Your task to perform on an android device: Search for "logitech g502" on costco.com, select the first entry, add it to the cart, then select checkout. Image 0: 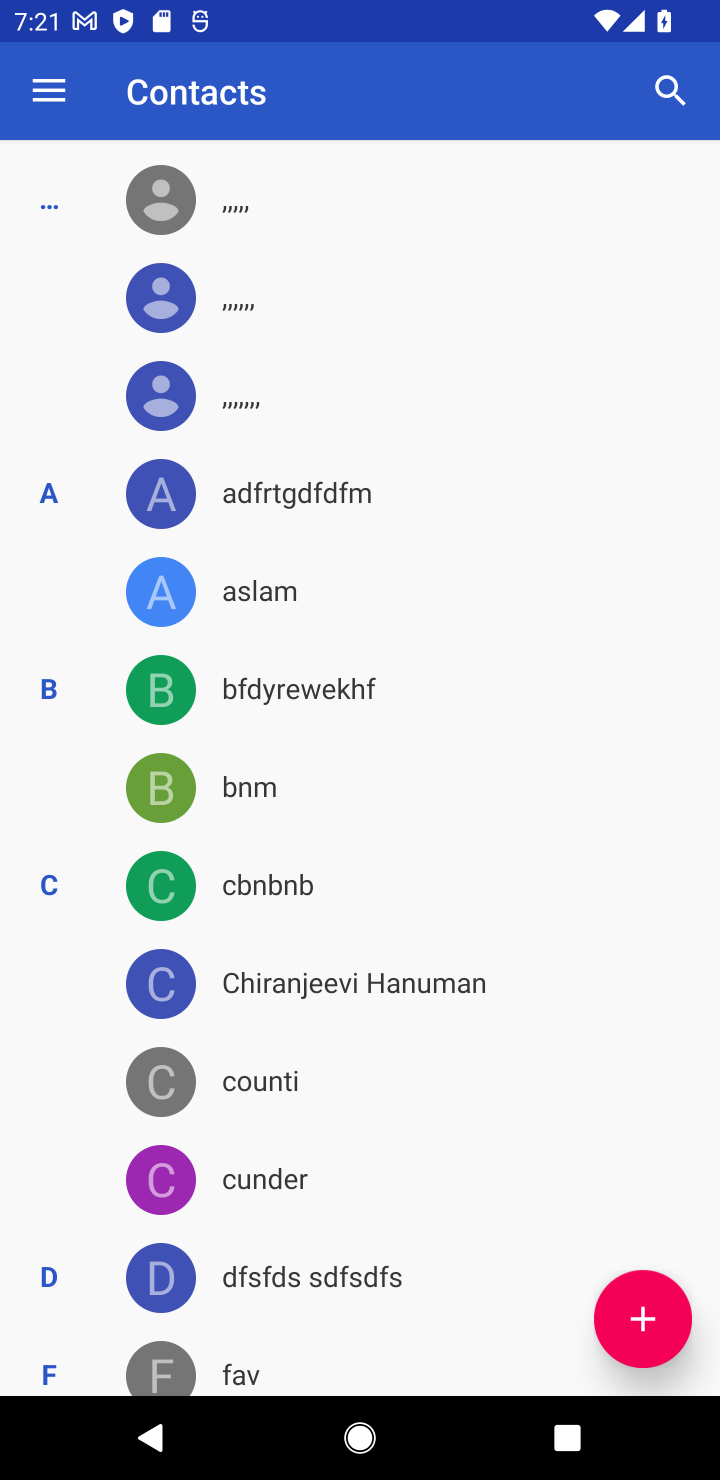
Step 0: press home button
Your task to perform on an android device: Search for "logitech g502" on costco.com, select the first entry, add it to the cart, then select checkout. Image 1: 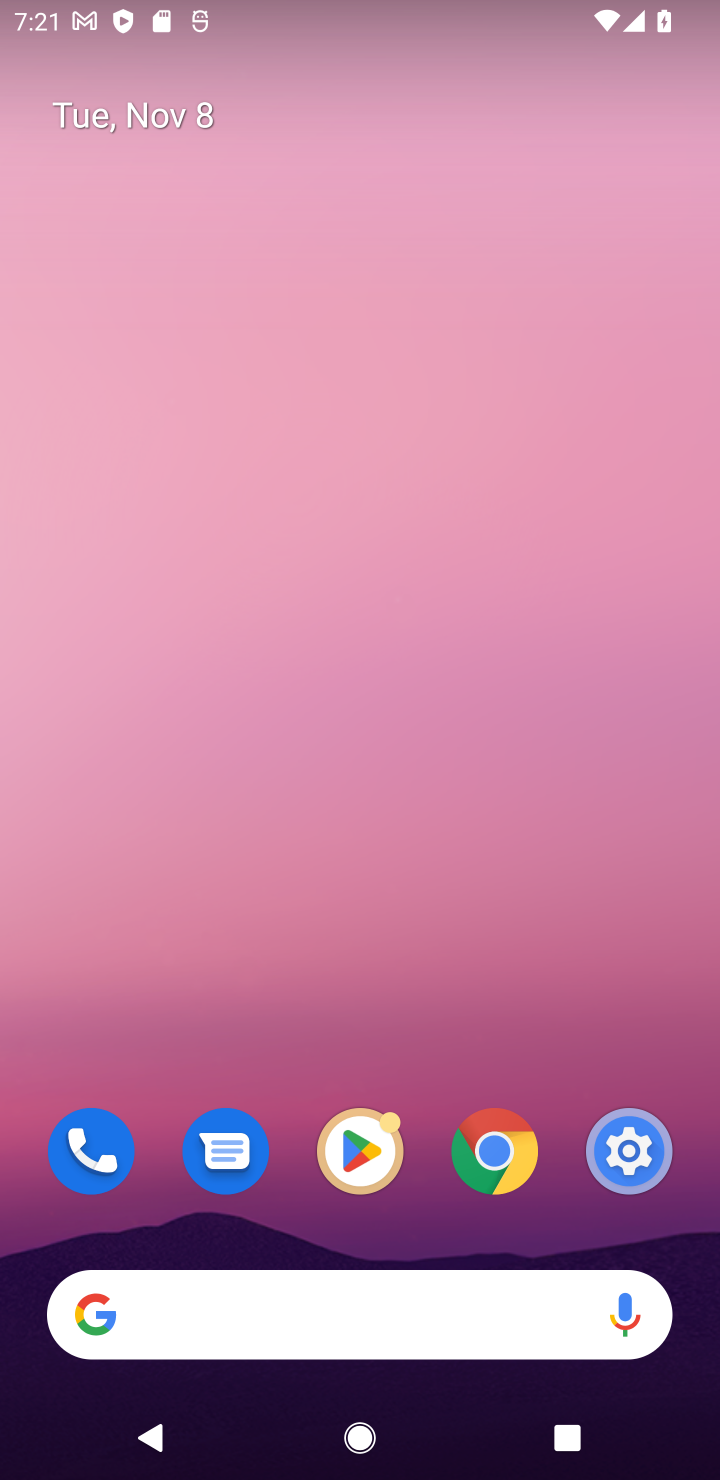
Step 1: click (457, 1335)
Your task to perform on an android device: Search for "logitech g502" on costco.com, select the first entry, add it to the cart, then select checkout. Image 2: 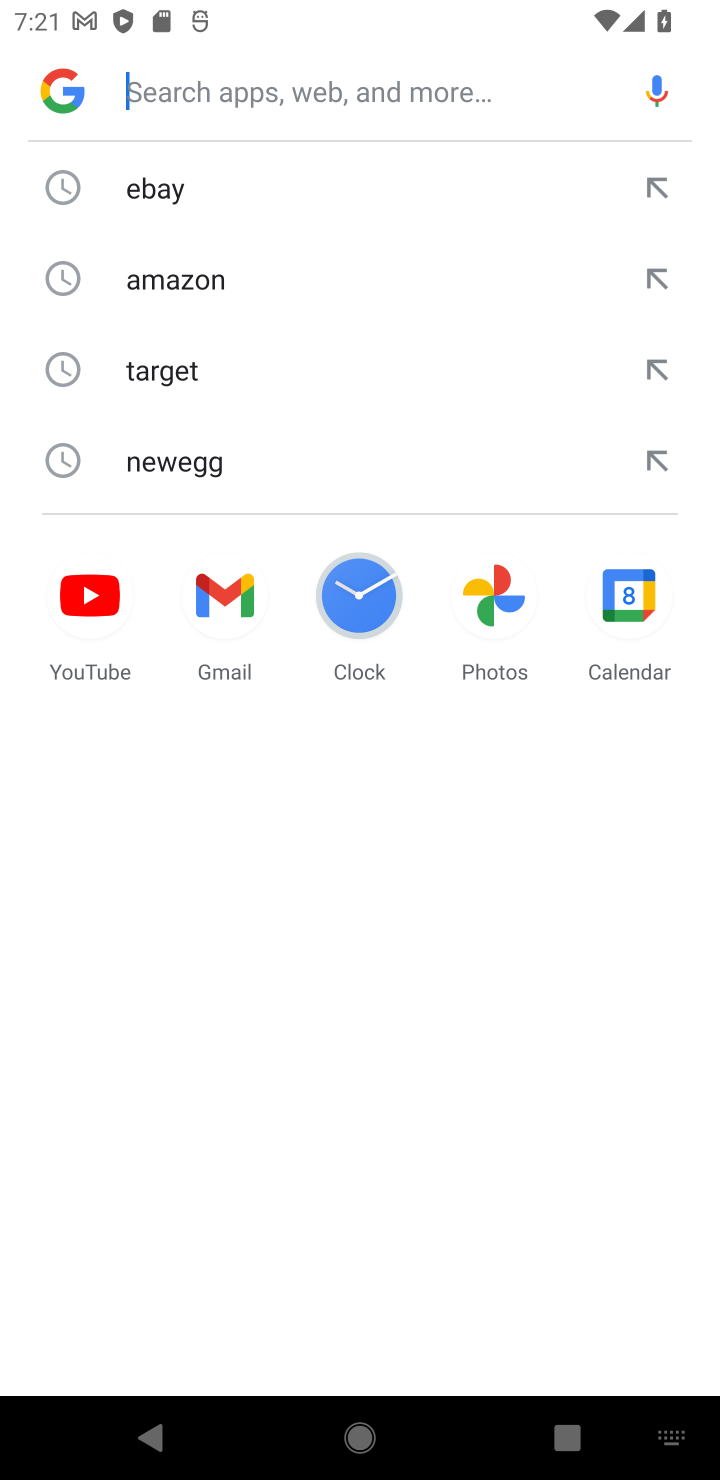
Step 2: type "costco"
Your task to perform on an android device: Search for "logitech g502" on costco.com, select the first entry, add it to the cart, then select checkout. Image 3: 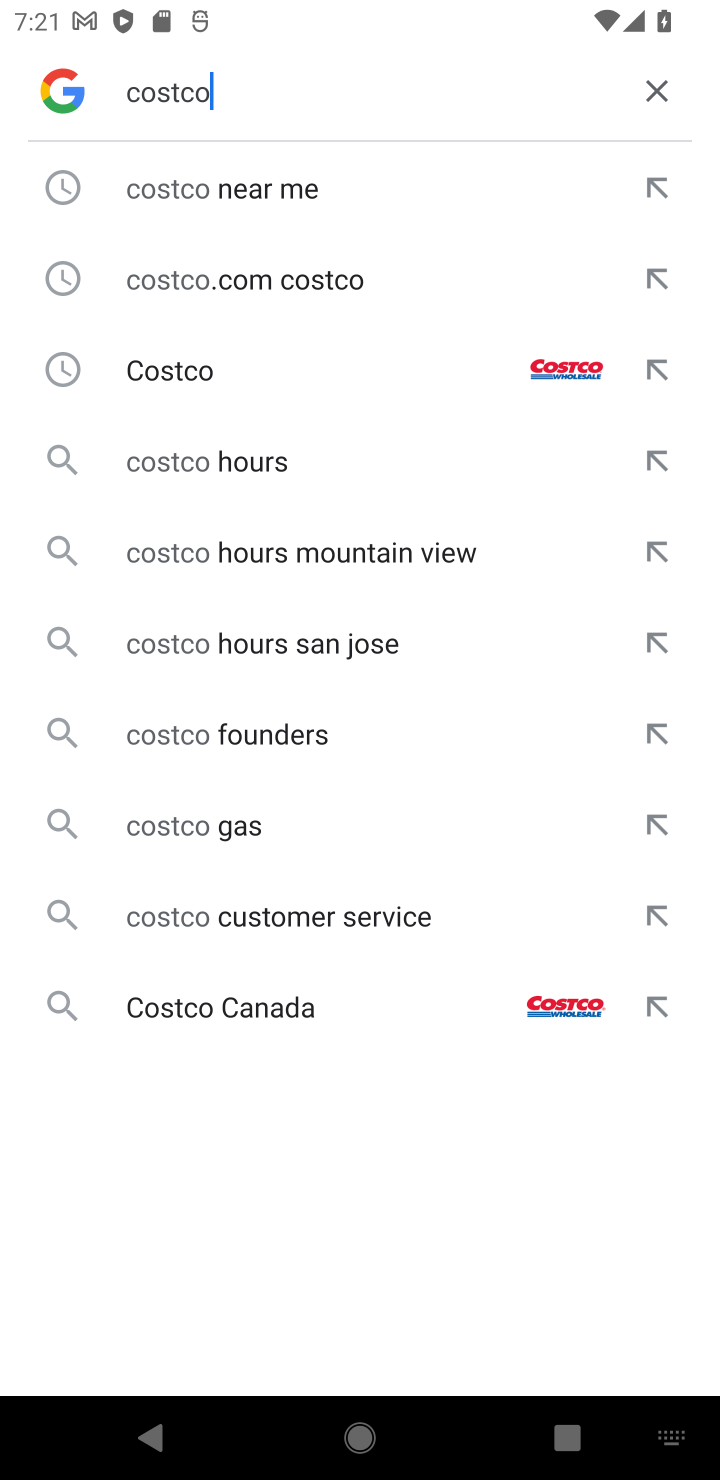
Step 3: click (303, 211)
Your task to perform on an android device: Search for "logitech g502" on costco.com, select the first entry, add it to the cart, then select checkout. Image 4: 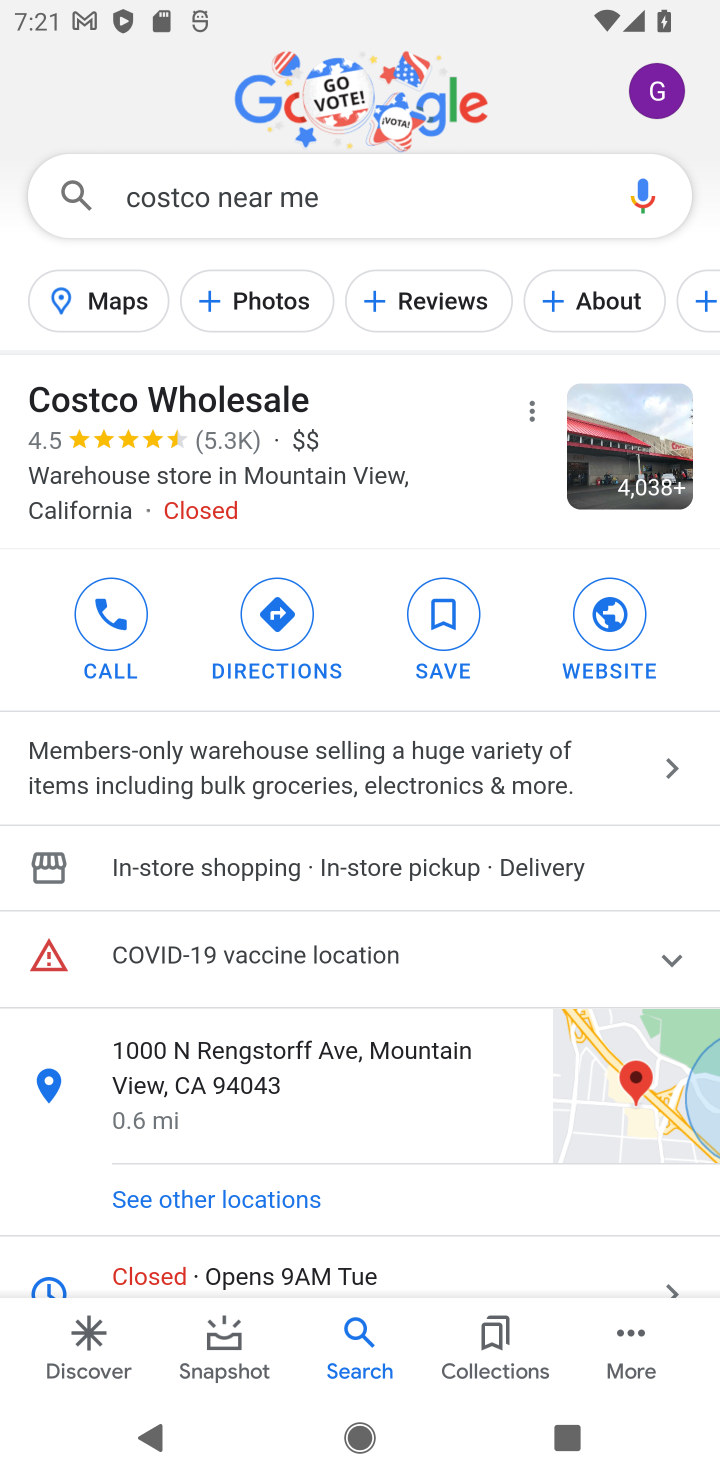
Step 4: task complete